Your task to perform on an android device: show emergency info Image 0: 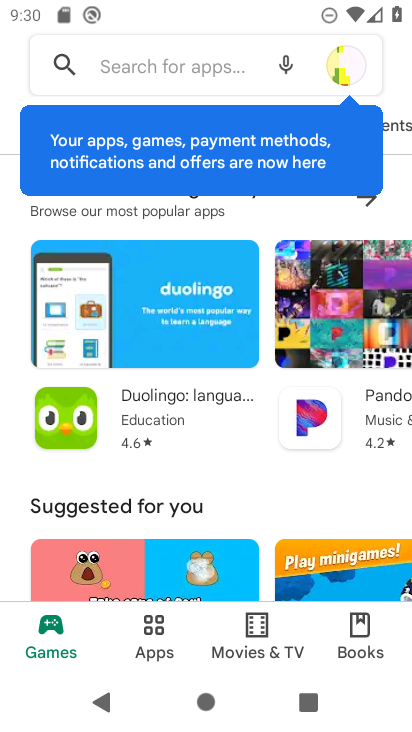
Step 0: press home button
Your task to perform on an android device: show emergency info Image 1: 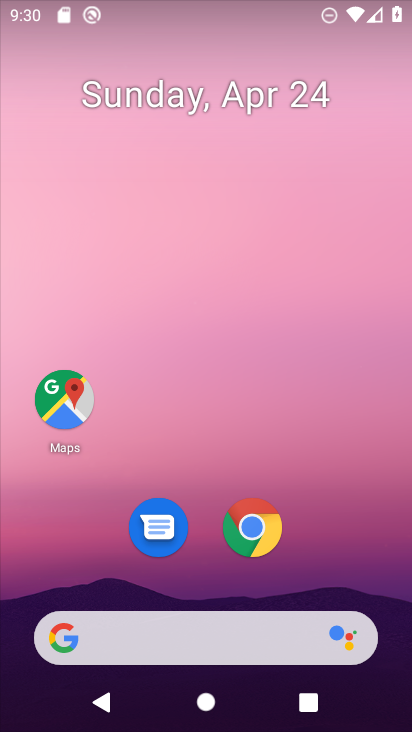
Step 1: drag from (384, 612) to (272, 20)
Your task to perform on an android device: show emergency info Image 2: 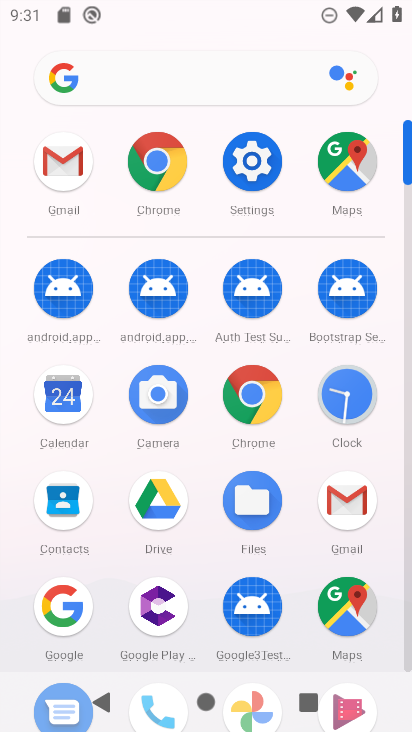
Step 2: click (248, 156)
Your task to perform on an android device: show emergency info Image 3: 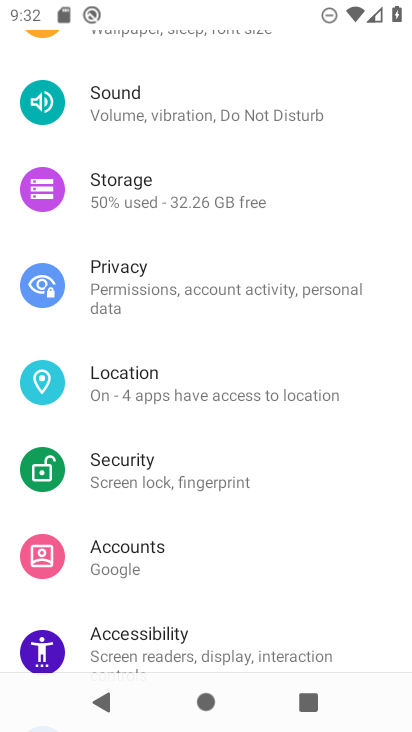
Step 3: drag from (187, 612) to (294, 132)
Your task to perform on an android device: show emergency info Image 4: 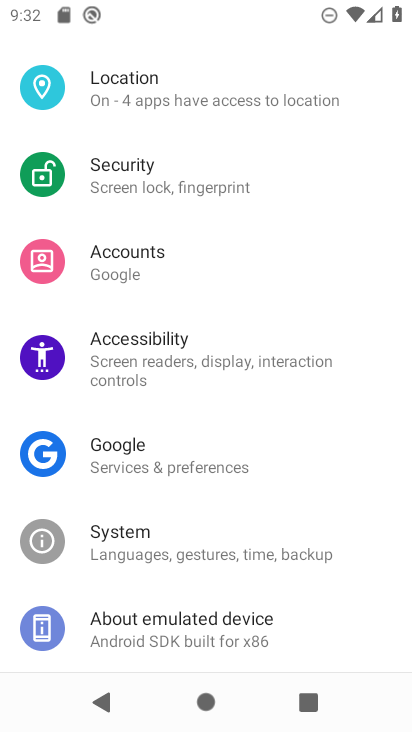
Step 4: click (216, 614)
Your task to perform on an android device: show emergency info Image 5: 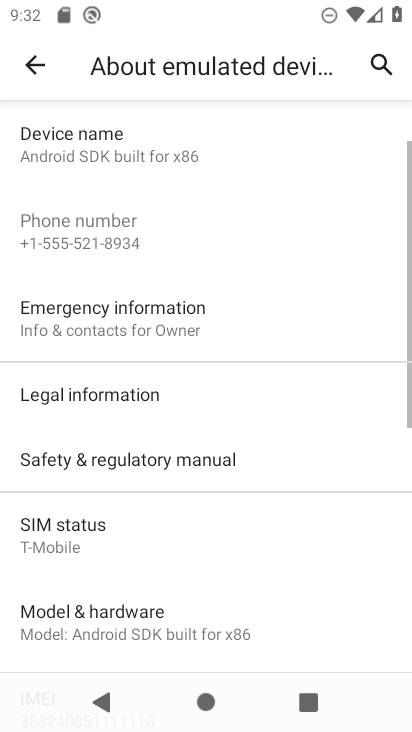
Step 5: click (161, 317)
Your task to perform on an android device: show emergency info Image 6: 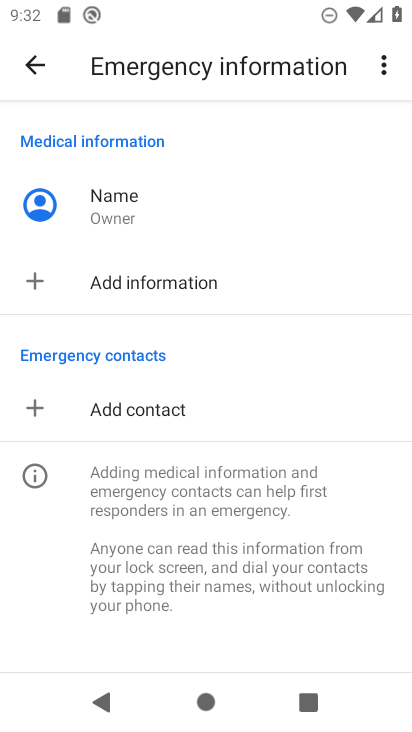
Step 6: task complete